Your task to perform on an android device: Open the calendar and show me this week's events? Image 0: 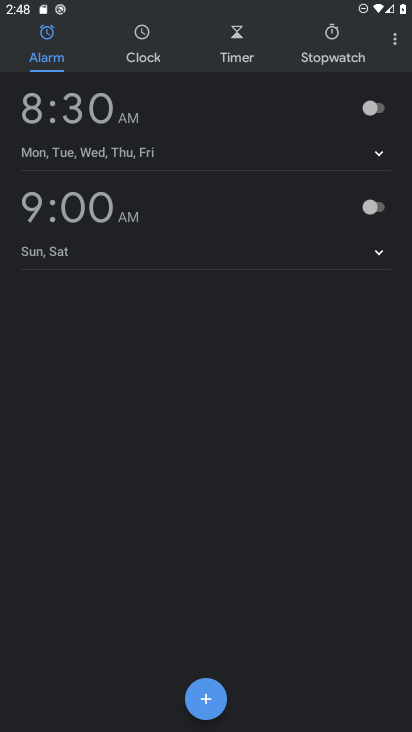
Step 0: drag from (227, 632) to (266, 228)
Your task to perform on an android device: Open the calendar and show me this week's events? Image 1: 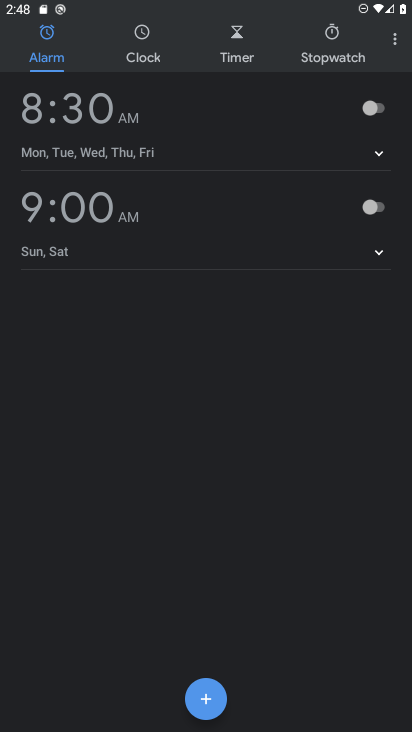
Step 1: press home button
Your task to perform on an android device: Open the calendar and show me this week's events? Image 2: 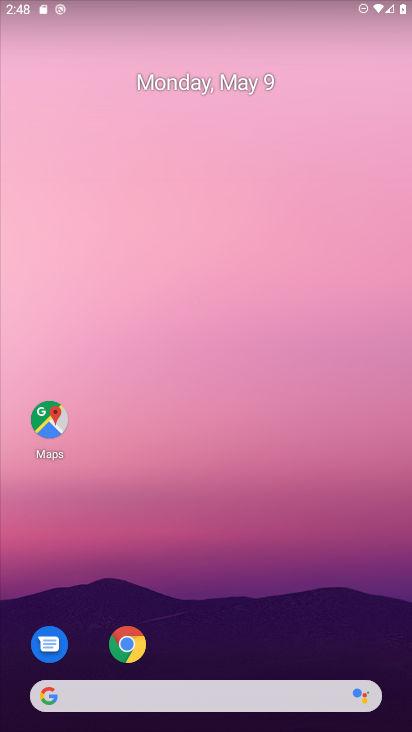
Step 2: drag from (198, 642) to (208, 77)
Your task to perform on an android device: Open the calendar and show me this week's events? Image 3: 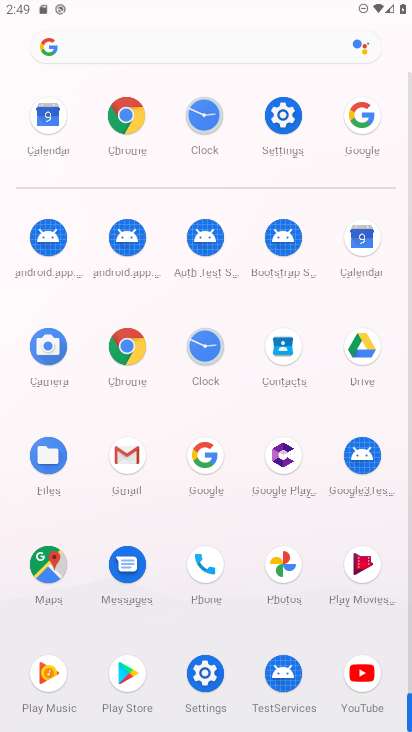
Step 3: click (347, 255)
Your task to perform on an android device: Open the calendar and show me this week's events? Image 4: 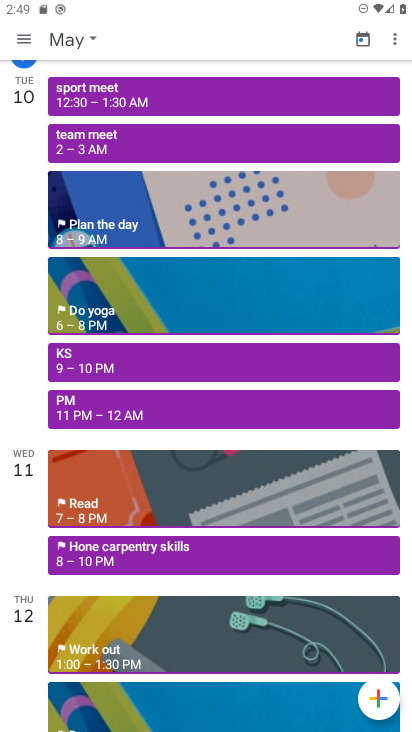
Step 4: click (34, 35)
Your task to perform on an android device: Open the calendar and show me this week's events? Image 5: 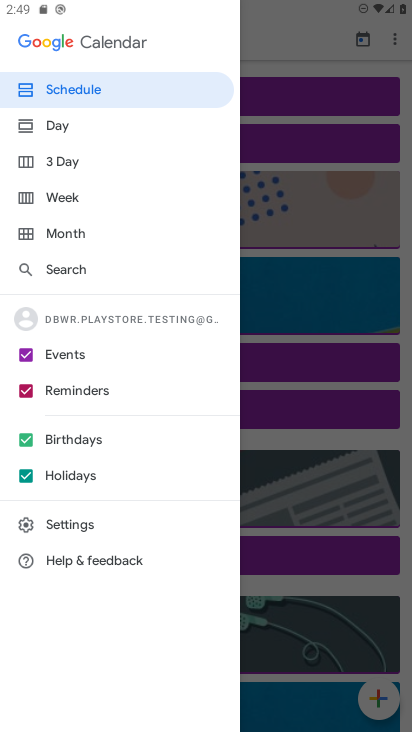
Step 5: click (60, 202)
Your task to perform on an android device: Open the calendar and show me this week's events? Image 6: 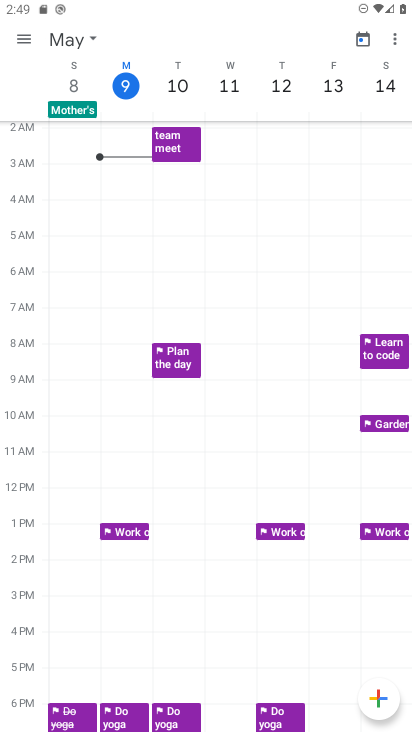
Step 6: task complete